Your task to perform on an android device: change keyboard looks Image 0: 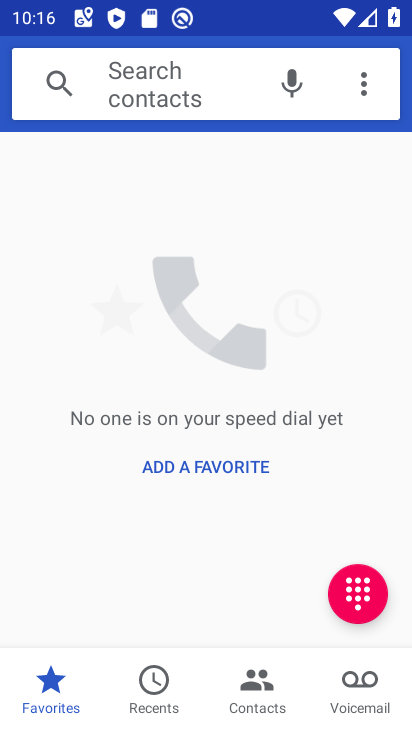
Step 0: press back button
Your task to perform on an android device: change keyboard looks Image 1: 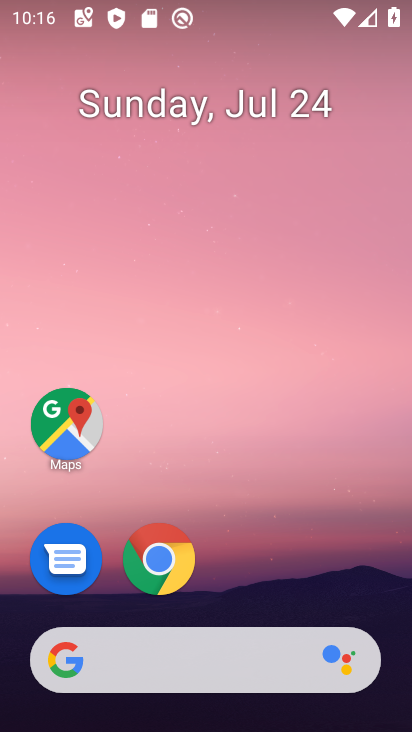
Step 1: drag from (230, 596) to (255, 24)
Your task to perform on an android device: change keyboard looks Image 2: 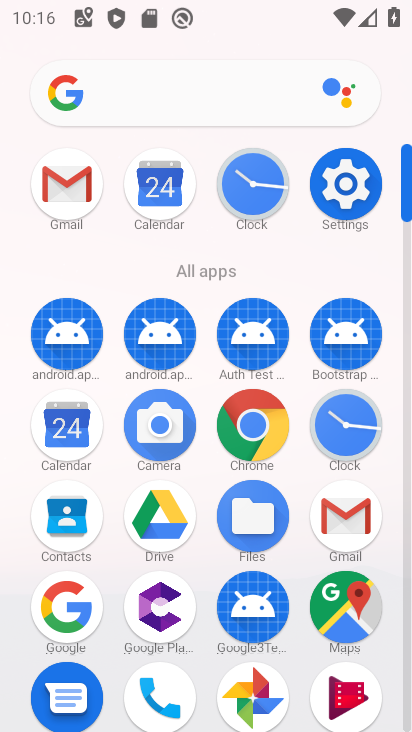
Step 2: click (349, 189)
Your task to perform on an android device: change keyboard looks Image 3: 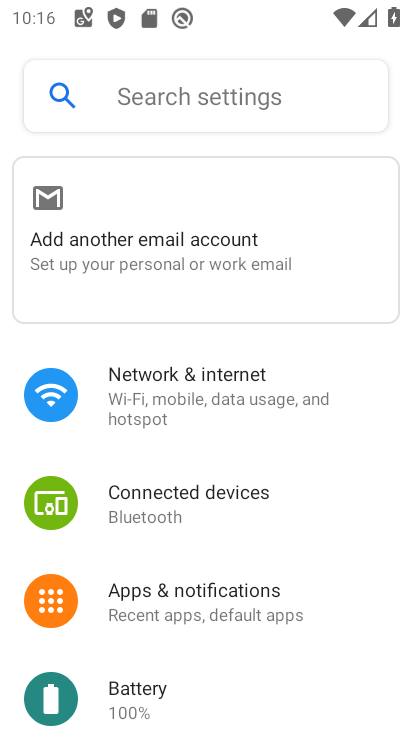
Step 3: drag from (169, 635) to (254, 44)
Your task to perform on an android device: change keyboard looks Image 4: 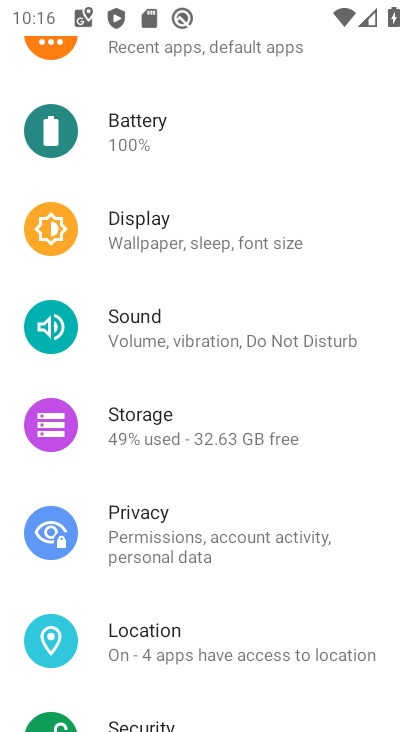
Step 4: drag from (175, 652) to (229, 2)
Your task to perform on an android device: change keyboard looks Image 5: 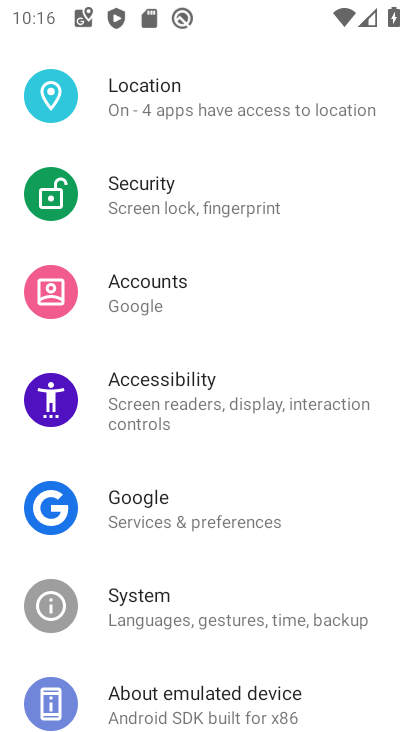
Step 5: click (181, 620)
Your task to perform on an android device: change keyboard looks Image 6: 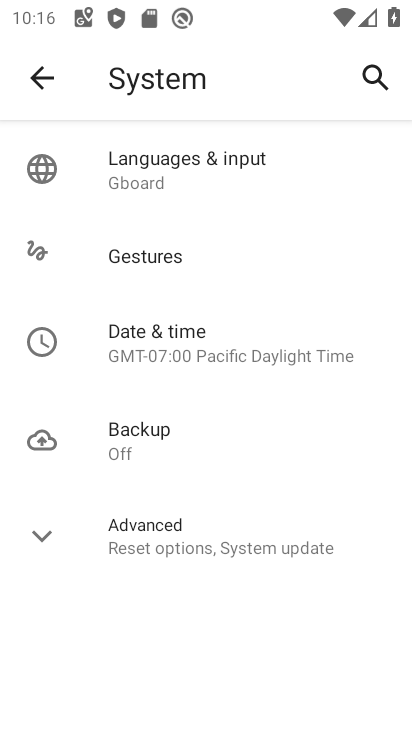
Step 6: click (169, 166)
Your task to perform on an android device: change keyboard looks Image 7: 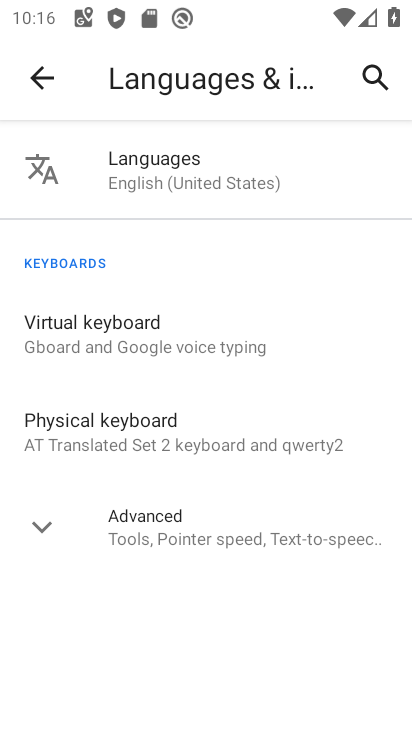
Step 7: click (91, 353)
Your task to perform on an android device: change keyboard looks Image 8: 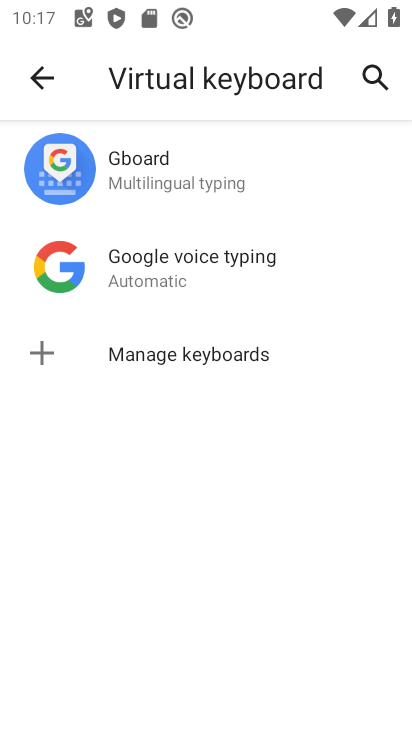
Step 8: click (141, 174)
Your task to perform on an android device: change keyboard looks Image 9: 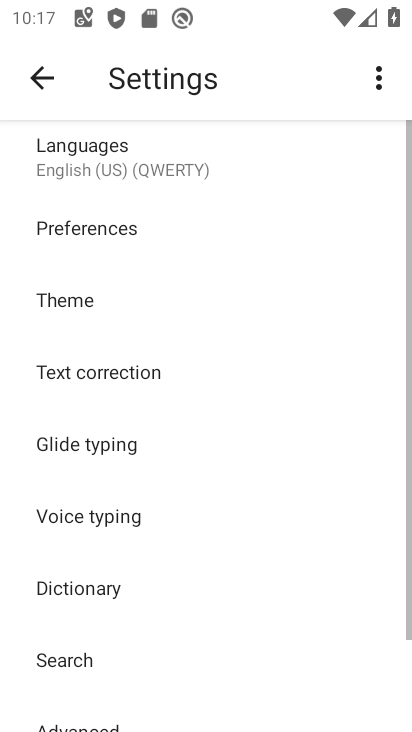
Step 9: click (75, 306)
Your task to perform on an android device: change keyboard looks Image 10: 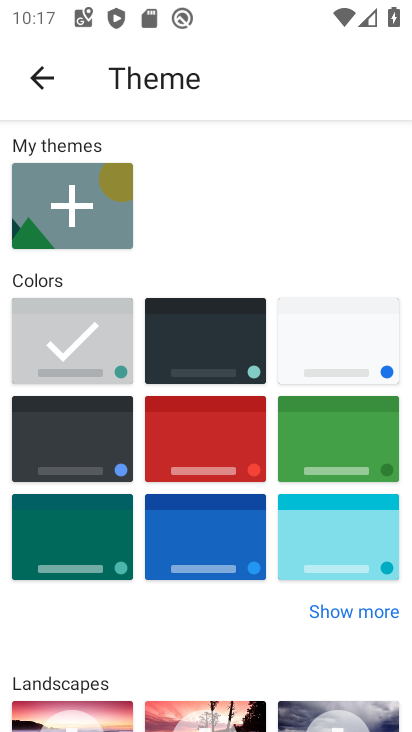
Step 10: click (195, 435)
Your task to perform on an android device: change keyboard looks Image 11: 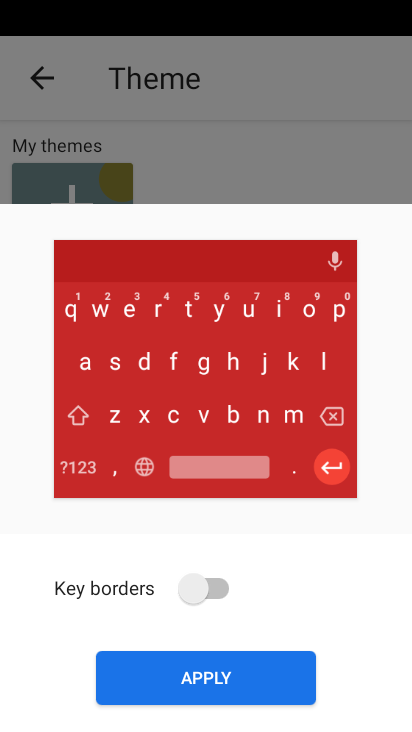
Step 11: click (230, 604)
Your task to perform on an android device: change keyboard looks Image 12: 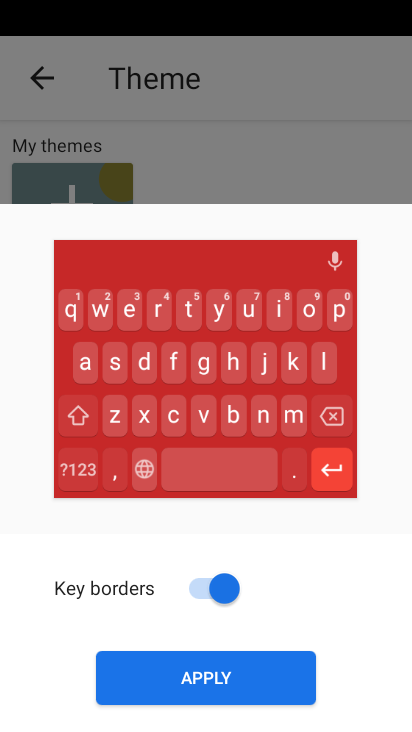
Step 12: click (212, 683)
Your task to perform on an android device: change keyboard looks Image 13: 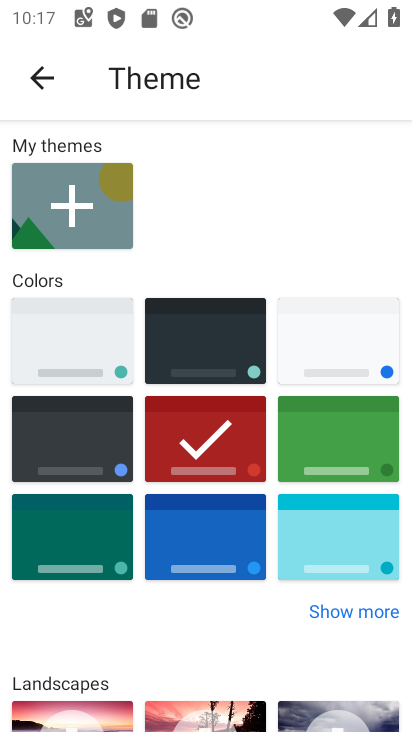
Step 13: task complete